Your task to perform on an android device: see sites visited before in the chrome app Image 0: 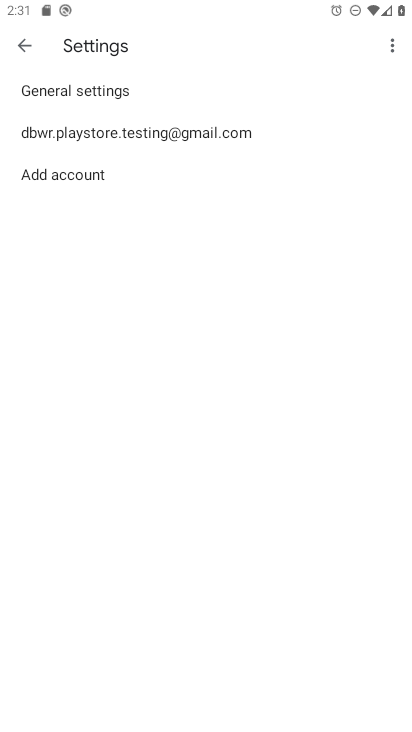
Step 0: press home button
Your task to perform on an android device: see sites visited before in the chrome app Image 1: 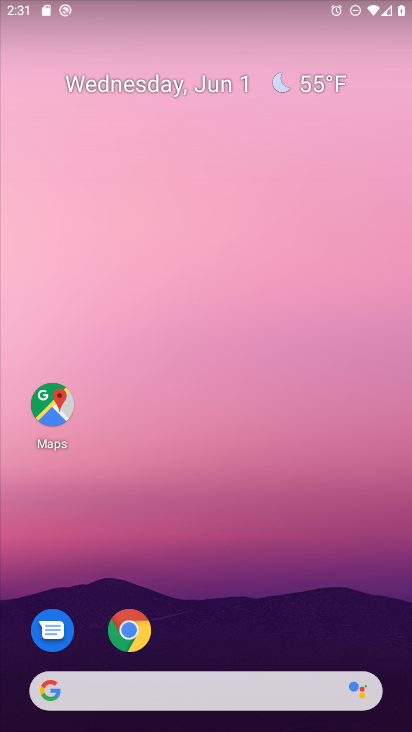
Step 1: drag from (294, 649) to (310, 11)
Your task to perform on an android device: see sites visited before in the chrome app Image 2: 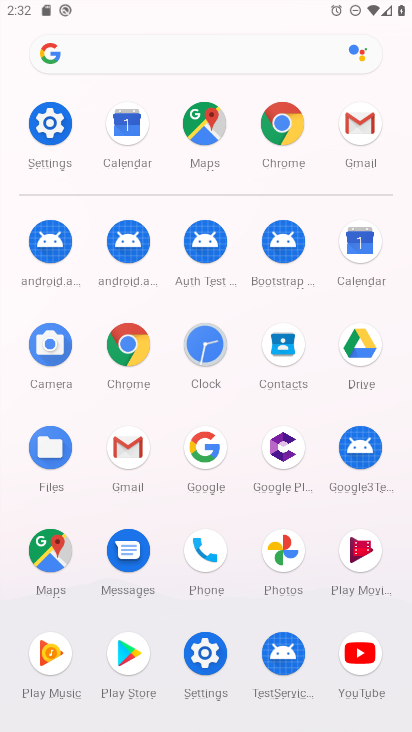
Step 2: click (123, 360)
Your task to perform on an android device: see sites visited before in the chrome app Image 3: 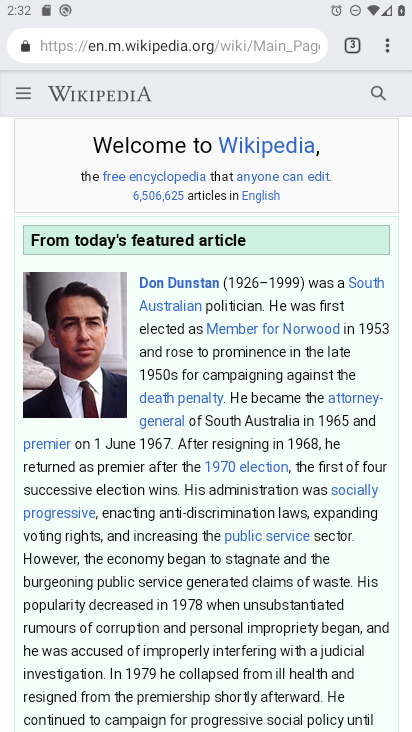
Step 3: task complete